Your task to perform on an android device: set an alarm Image 0: 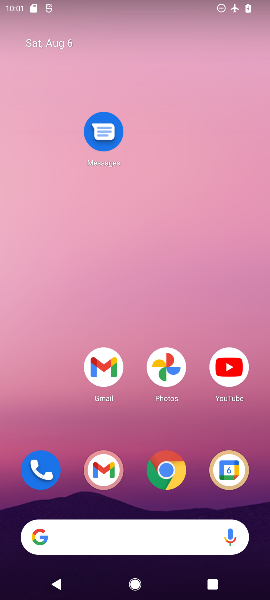
Step 0: drag from (118, 526) to (126, 160)
Your task to perform on an android device: set an alarm Image 1: 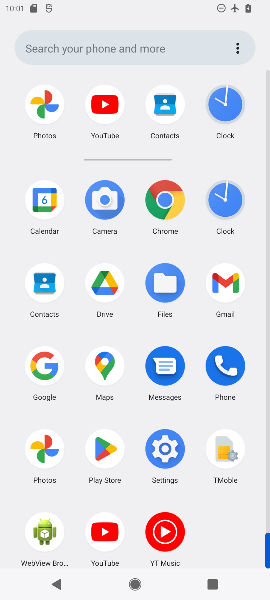
Step 1: click (231, 204)
Your task to perform on an android device: set an alarm Image 2: 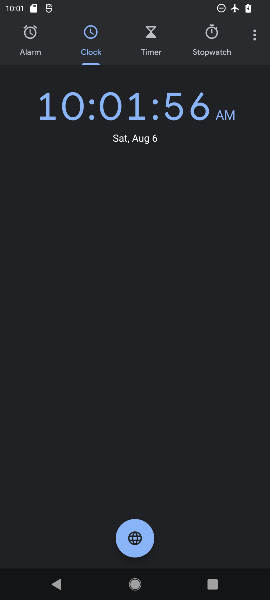
Step 2: click (34, 38)
Your task to perform on an android device: set an alarm Image 3: 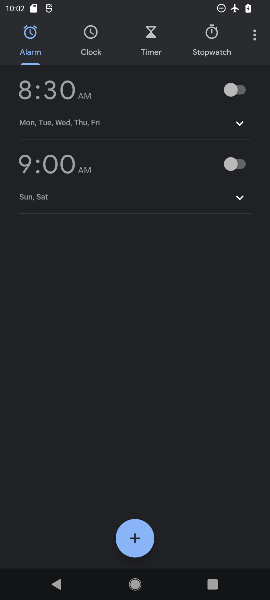
Step 3: click (139, 533)
Your task to perform on an android device: set an alarm Image 4: 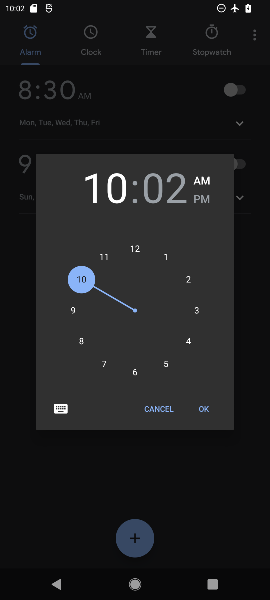
Step 4: click (212, 405)
Your task to perform on an android device: set an alarm Image 5: 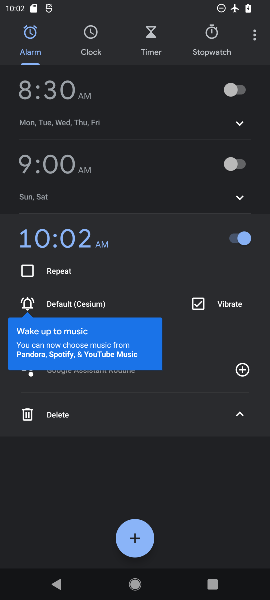
Step 5: task complete